Your task to perform on an android device: check out phone information Image 0: 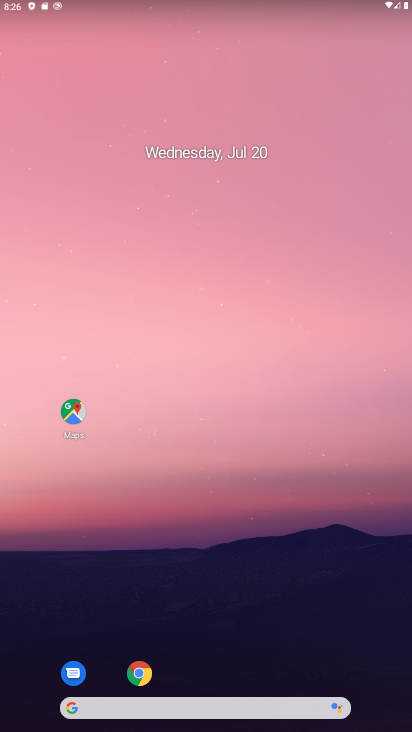
Step 0: drag from (249, 711) to (249, 264)
Your task to perform on an android device: check out phone information Image 1: 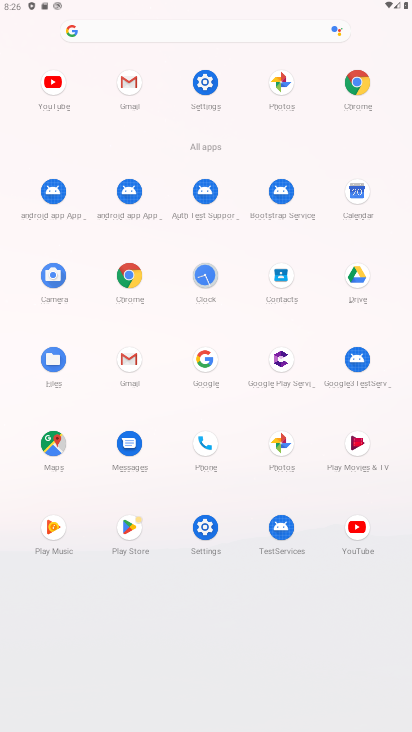
Step 1: click (209, 87)
Your task to perform on an android device: check out phone information Image 2: 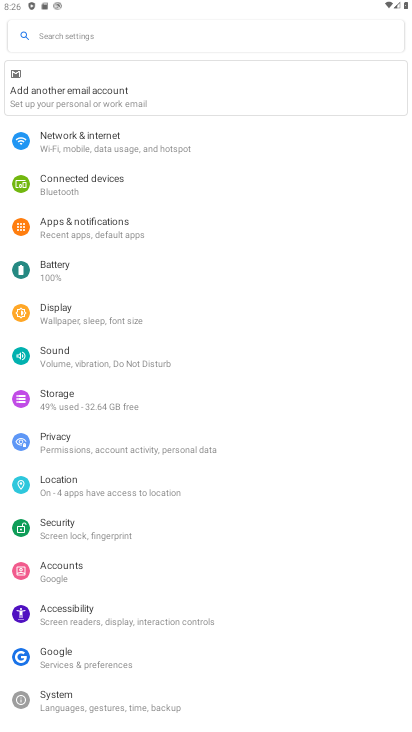
Step 2: drag from (106, 677) to (87, 311)
Your task to perform on an android device: check out phone information Image 3: 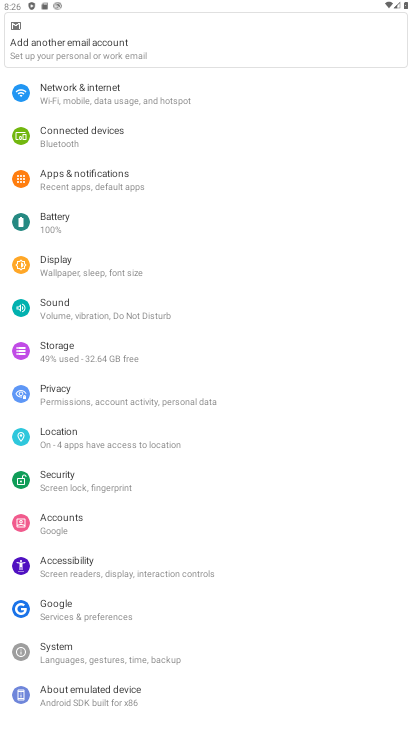
Step 3: click (94, 698)
Your task to perform on an android device: check out phone information Image 4: 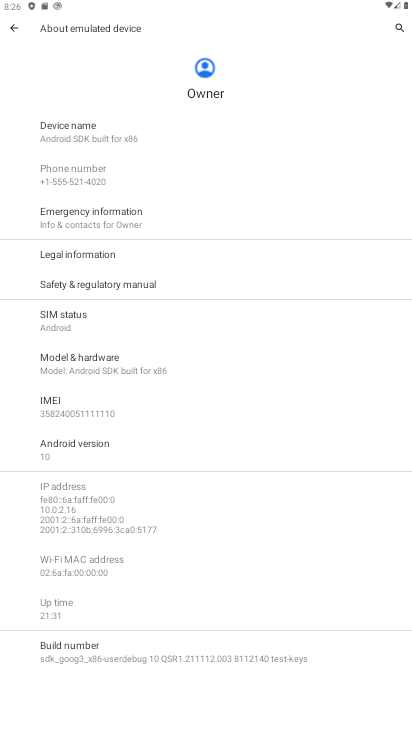
Step 4: task complete